Your task to perform on an android device: Show the shopping cart on ebay. Add "jbl flip 4" to the cart on ebay, then select checkout. Image 0: 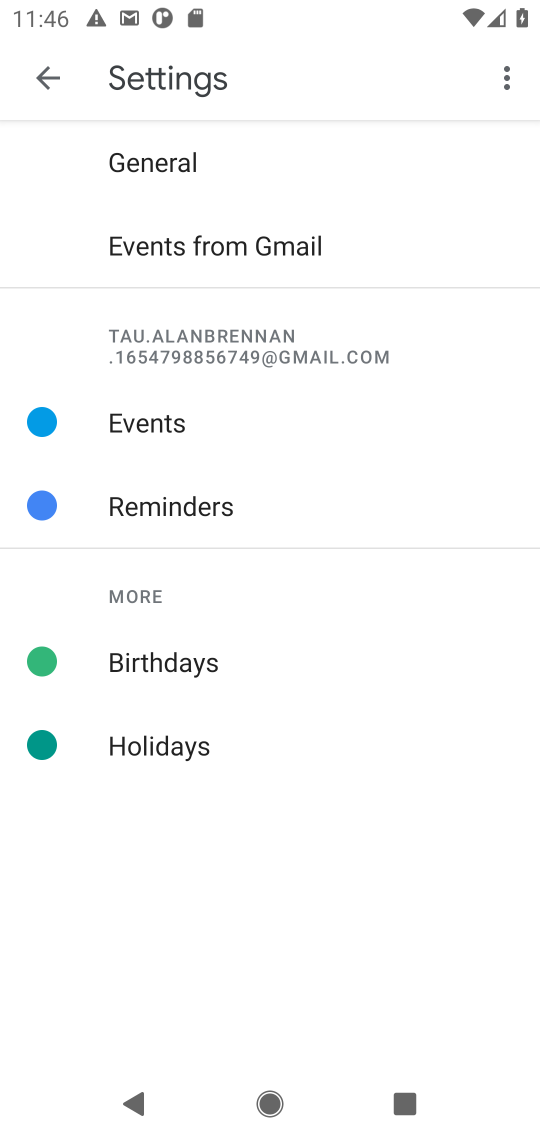
Step 0: click (366, 885)
Your task to perform on an android device: Show the shopping cart on ebay. Add "jbl flip 4" to the cart on ebay, then select checkout. Image 1: 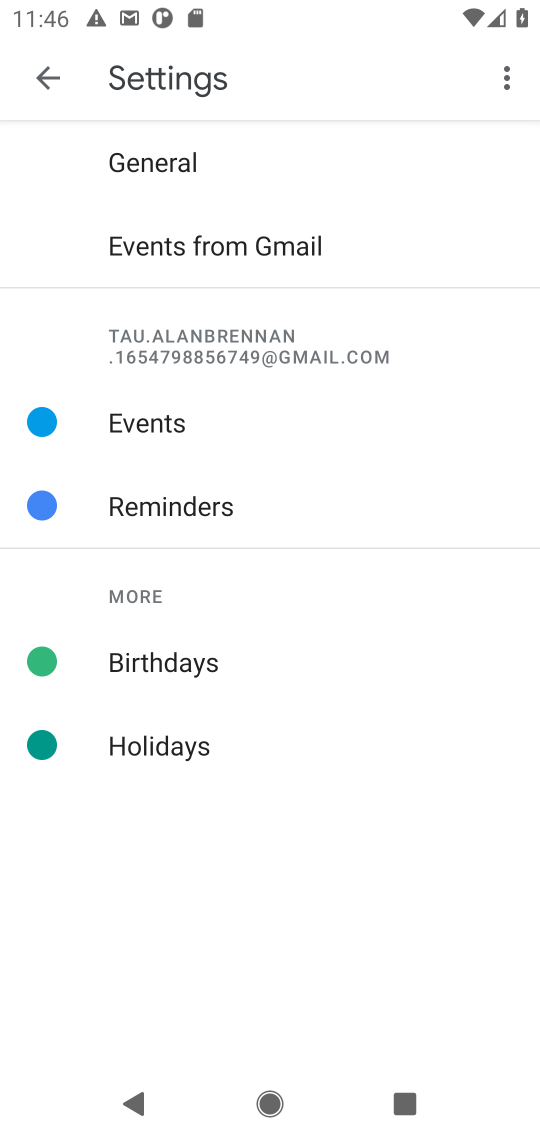
Step 1: press home button
Your task to perform on an android device: Show the shopping cart on ebay. Add "jbl flip 4" to the cart on ebay, then select checkout. Image 2: 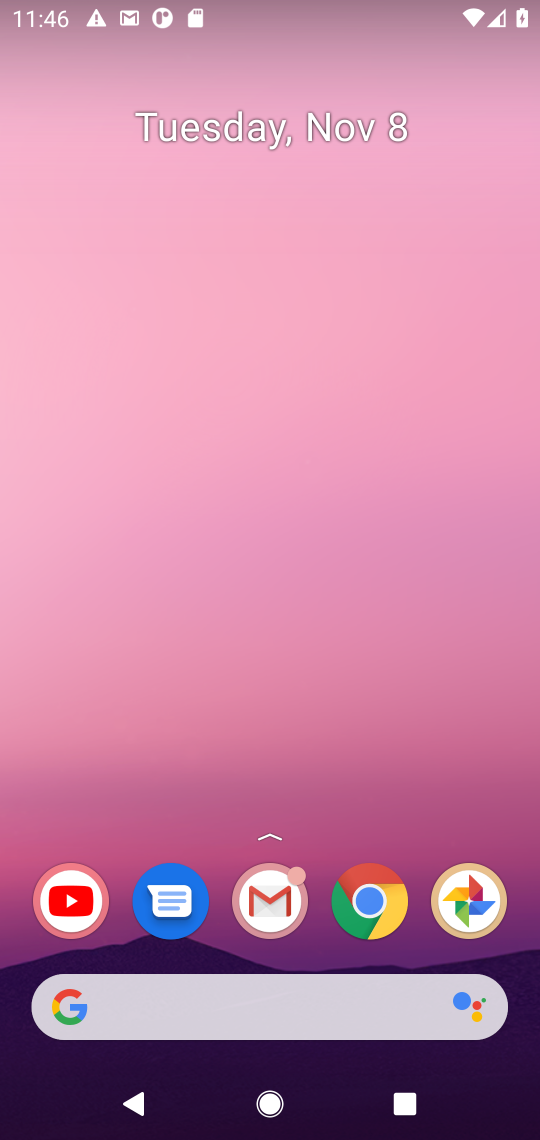
Step 2: click (362, 911)
Your task to perform on an android device: Show the shopping cart on ebay. Add "jbl flip 4" to the cart on ebay, then select checkout. Image 3: 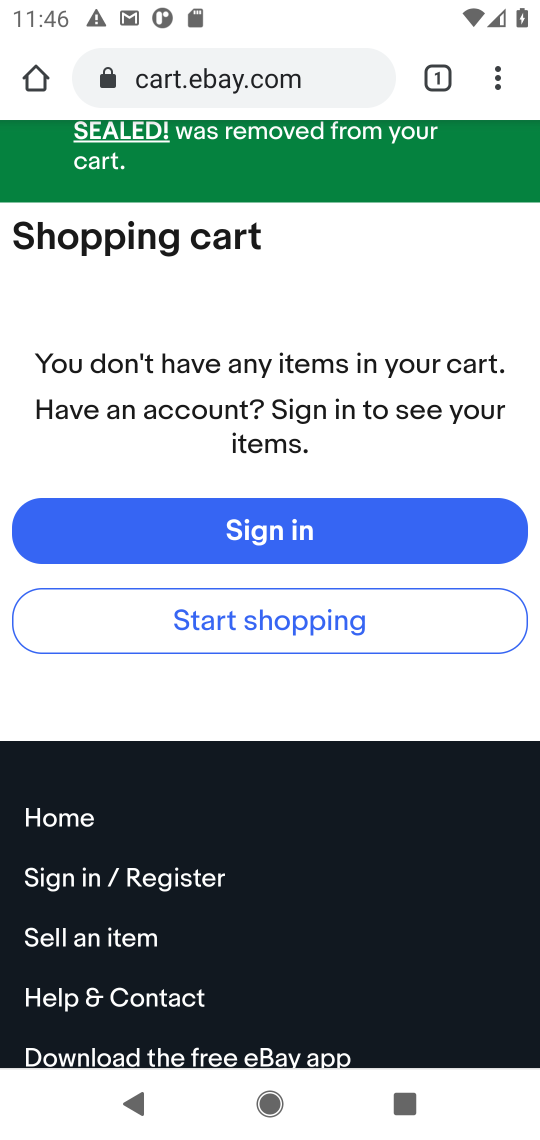
Step 3: drag from (238, 233) to (483, 1127)
Your task to perform on an android device: Show the shopping cart on ebay. Add "jbl flip 4" to the cart on ebay, then select checkout. Image 4: 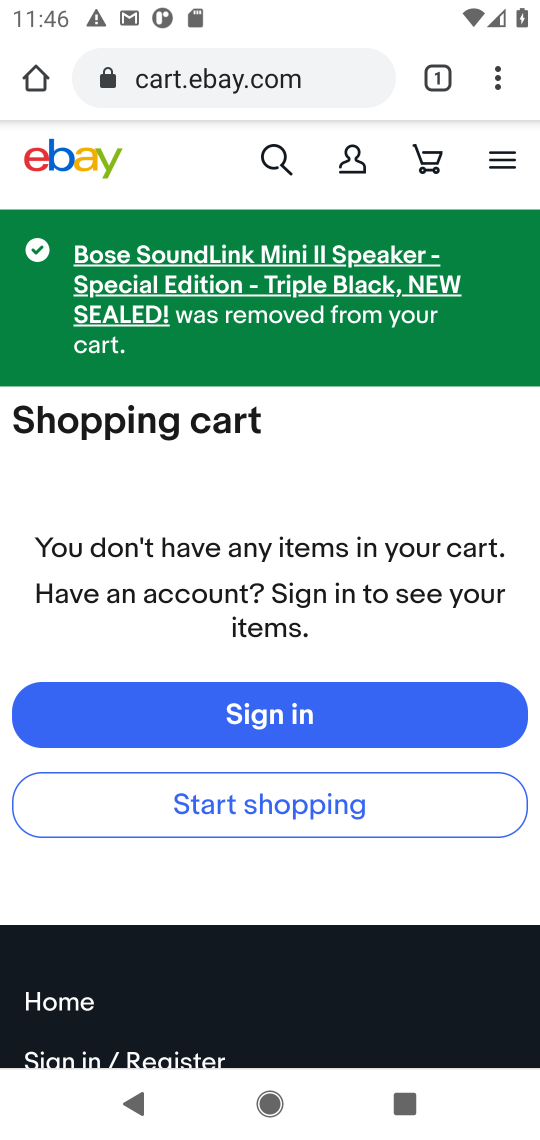
Step 4: drag from (188, 177) to (444, 768)
Your task to perform on an android device: Show the shopping cart on ebay. Add "jbl flip 4" to the cart on ebay, then select checkout. Image 5: 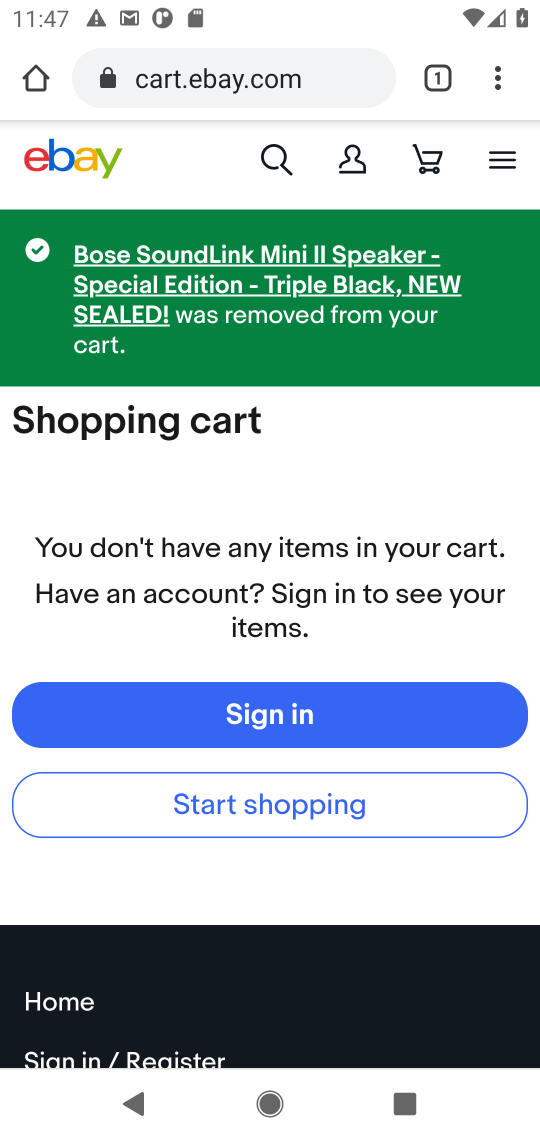
Step 5: click (423, 173)
Your task to perform on an android device: Show the shopping cart on ebay. Add "jbl flip 4" to the cart on ebay, then select checkout. Image 6: 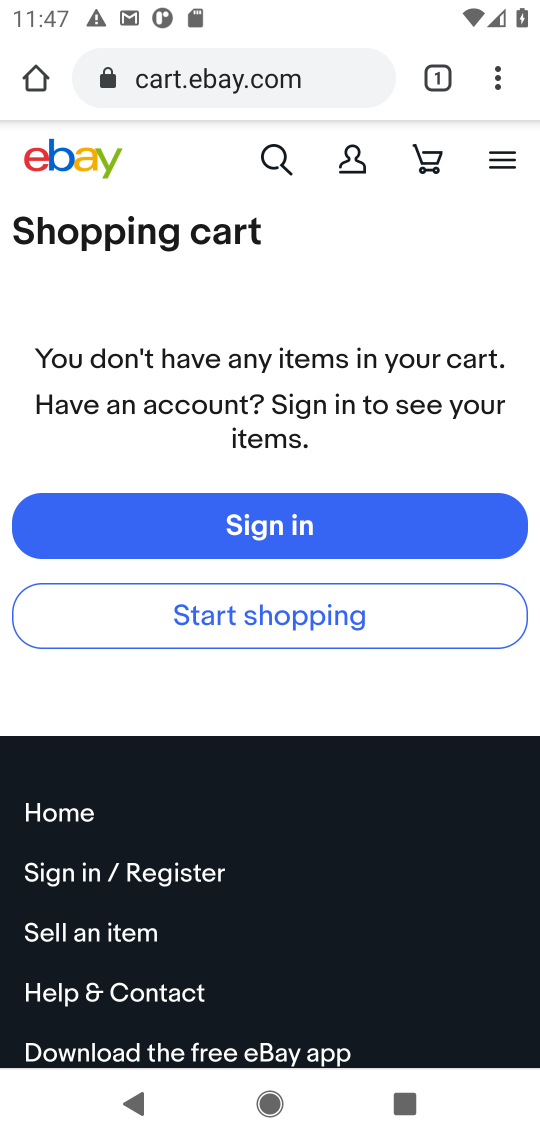
Step 6: click (276, 165)
Your task to perform on an android device: Show the shopping cart on ebay. Add "jbl flip 4" to the cart on ebay, then select checkout. Image 7: 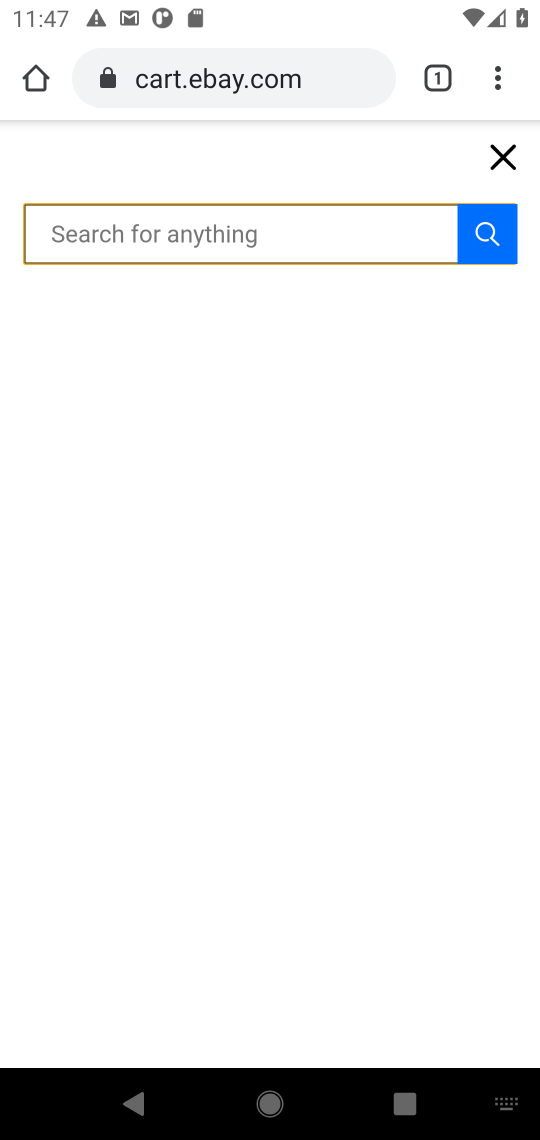
Step 7: type "jbl flip 4"
Your task to perform on an android device: Show the shopping cart on ebay. Add "jbl flip 4" to the cart on ebay, then select checkout. Image 8: 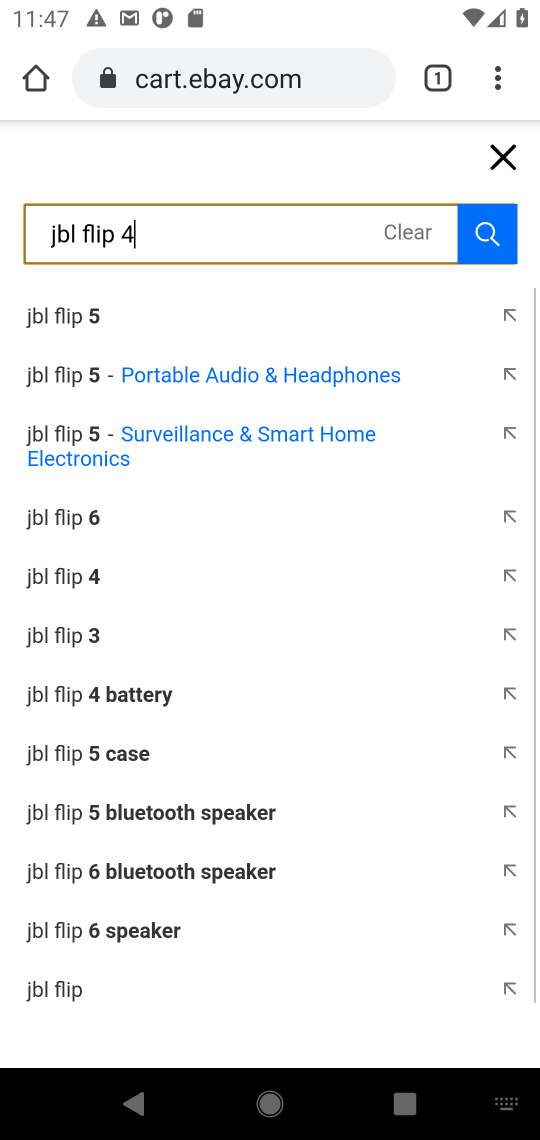
Step 8: press enter
Your task to perform on an android device: Show the shopping cart on ebay. Add "jbl flip 4" to the cart on ebay, then select checkout. Image 9: 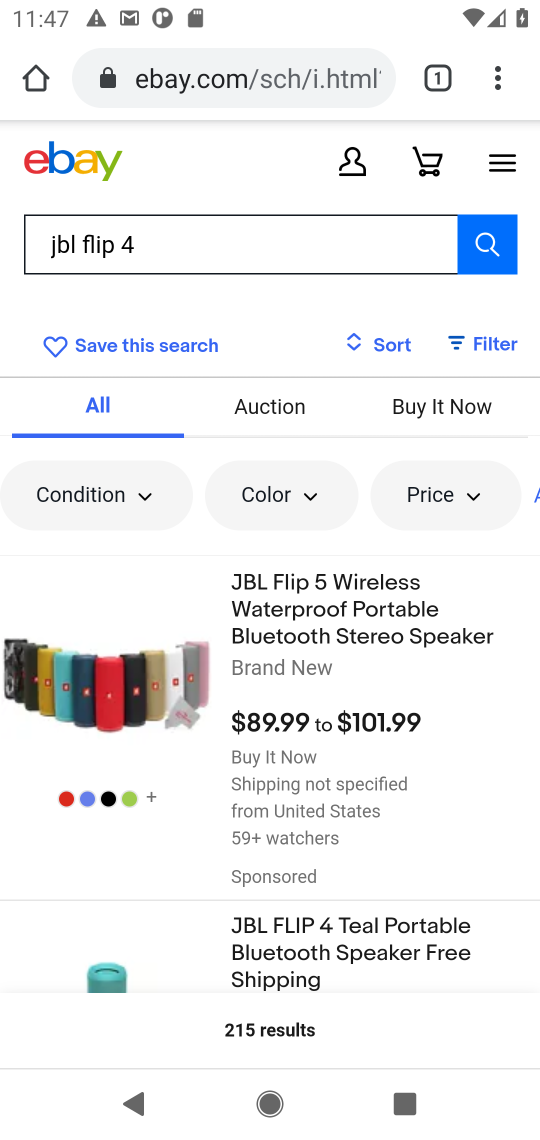
Step 9: click (393, 947)
Your task to perform on an android device: Show the shopping cart on ebay. Add "jbl flip 4" to the cart on ebay, then select checkout. Image 10: 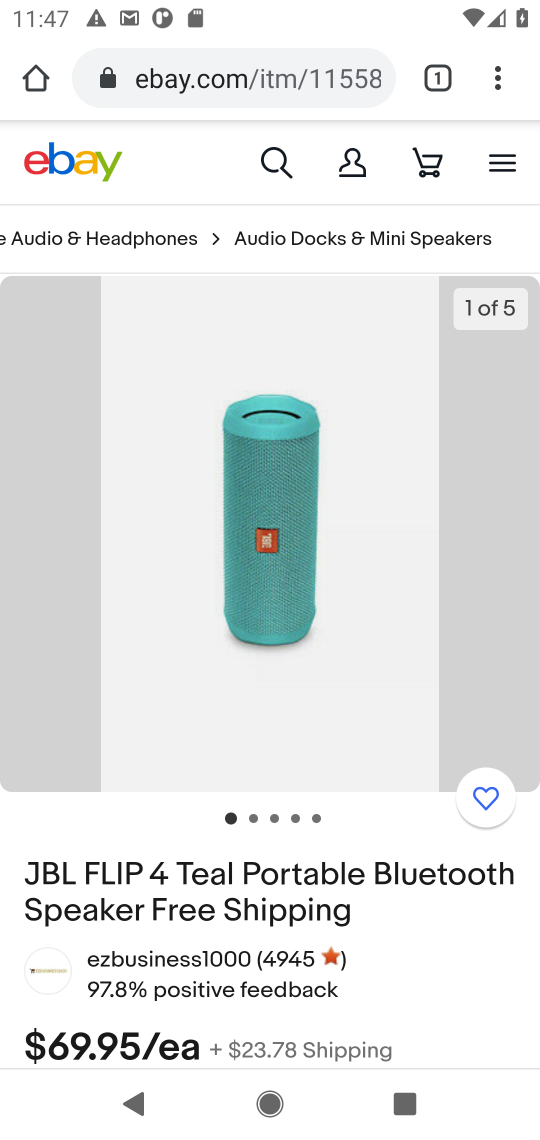
Step 10: drag from (463, 970) to (460, 263)
Your task to perform on an android device: Show the shopping cart on ebay. Add "jbl flip 4" to the cart on ebay, then select checkout. Image 11: 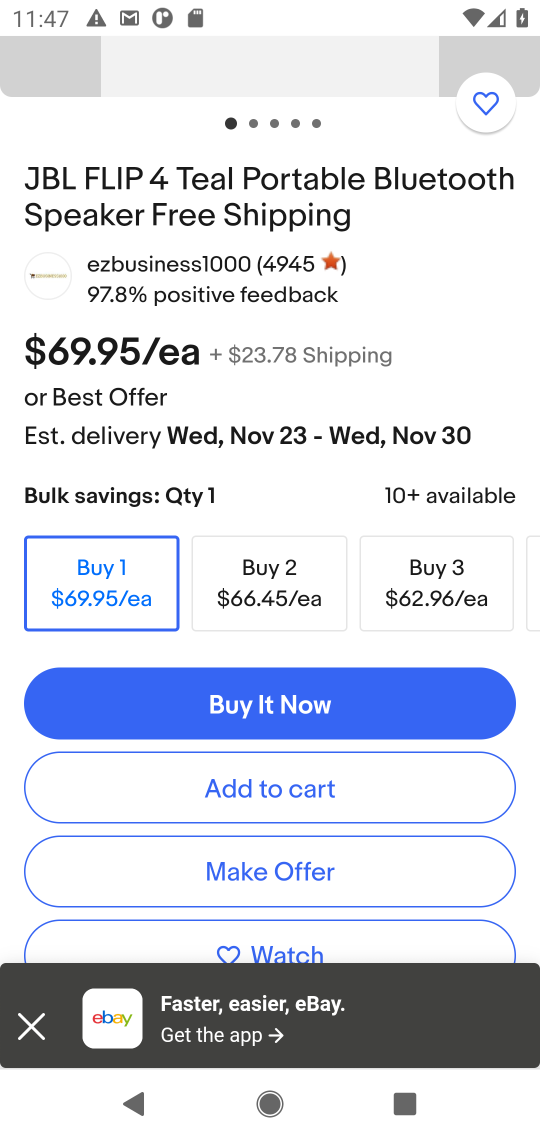
Step 11: click (275, 785)
Your task to perform on an android device: Show the shopping cart on ebay. Add "jbl flip 4" to the cart on ebay, then select checkout. Image 12: 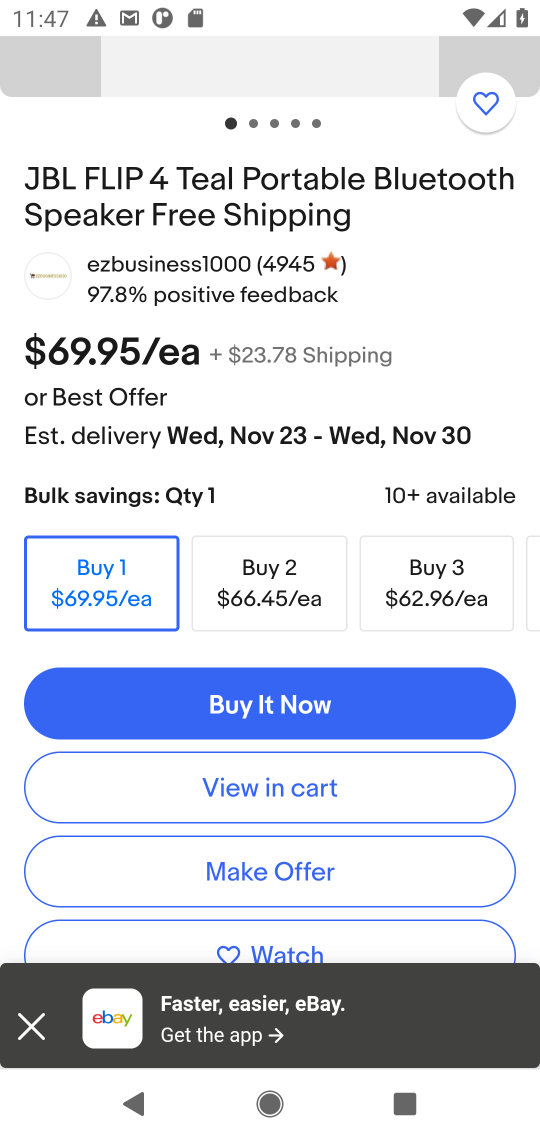
Step 12: click (275, 785)
Your task to perform on an android device: Show the shopping cart on ebay. Add "jbl flip 4" to the cart on ebay, then select checkout. Image 13: 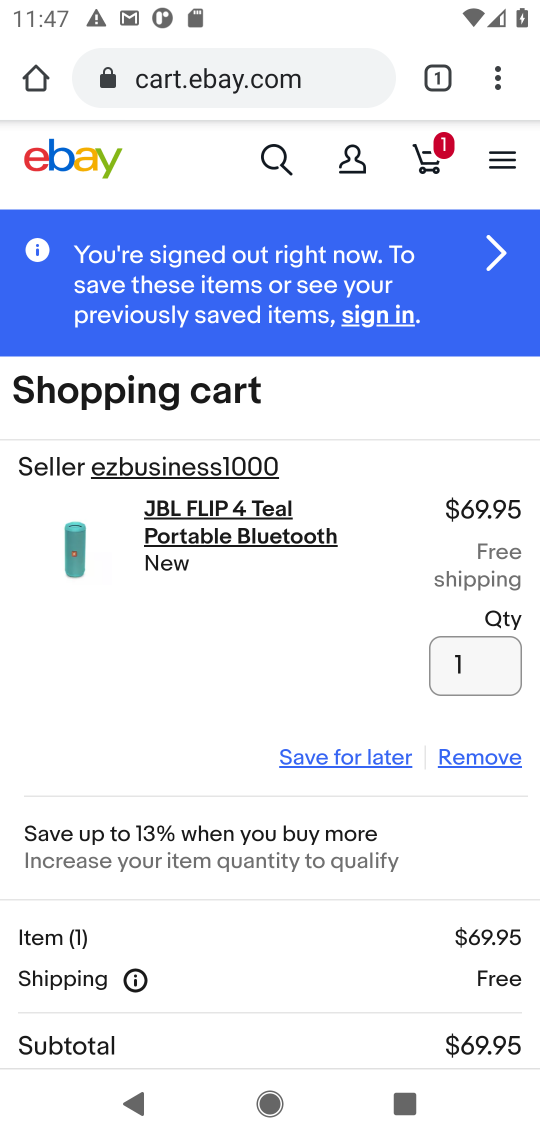
Step 13: drag from (448, 855) to (442, 692)
Your task to perform on an android device: Show the shopping cart on ebay. Add "jbl flip 4" to the cart on ebay, then select checkout. Image 14: 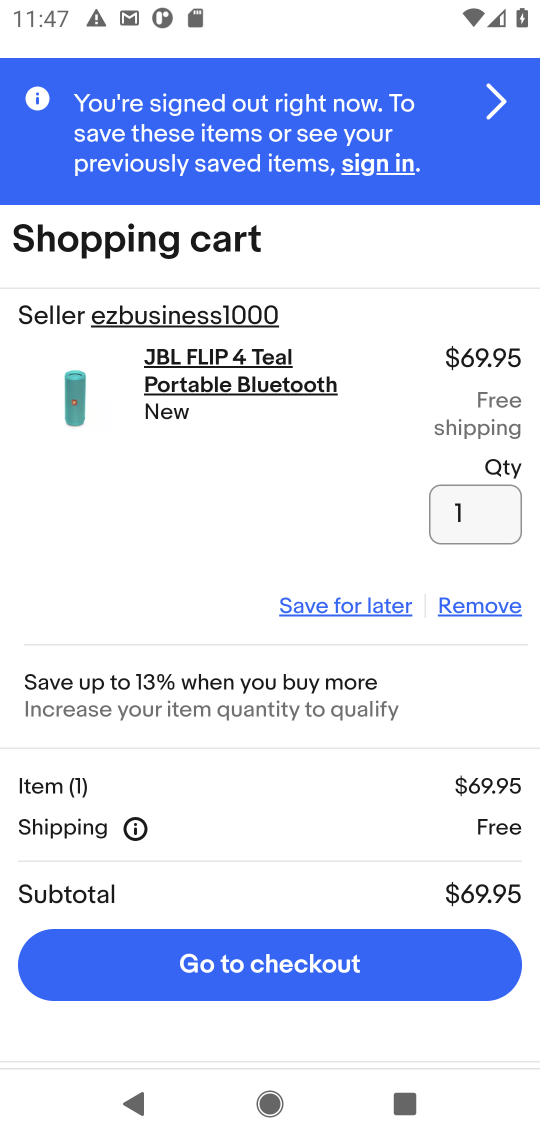
Step 14: click (341, 960)
Your task to perform on an android device: Show the shopping cart on ebay. Add "jbl flip 4" to the cart on ebay, then select checkout. Image 15: 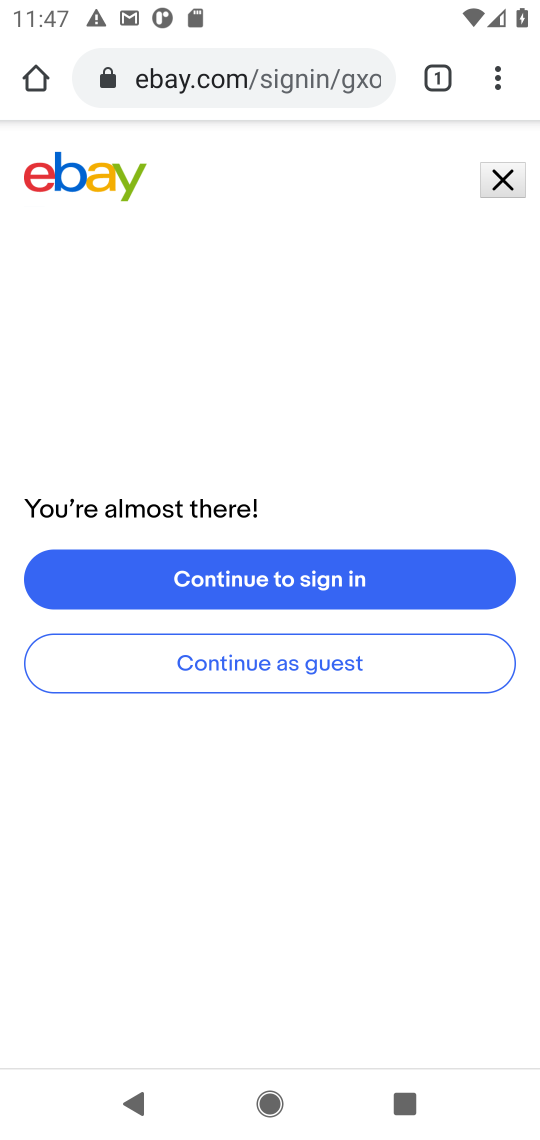
Step 15: task complete